Your task to perform on an android device: Open maps Image 0: 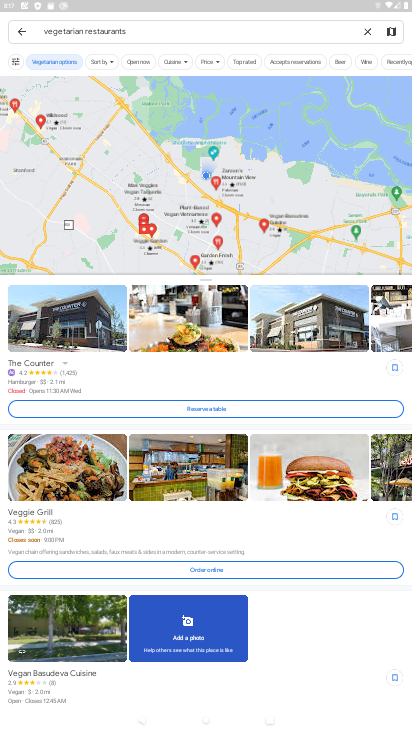
Step 0: task complete